Your task to perform on an android device: What's the weather going to be this weekend? Image 0: 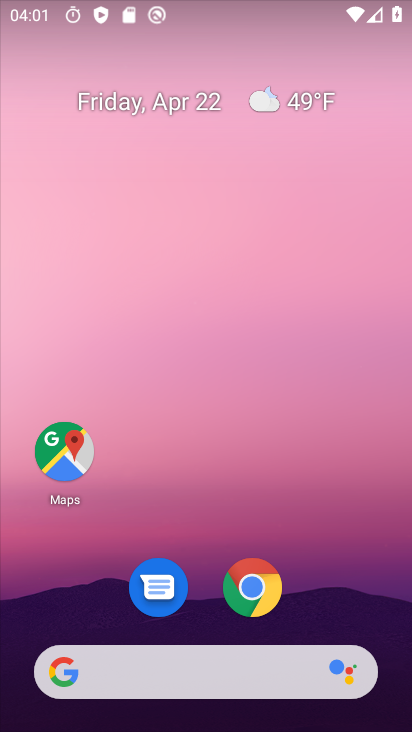
Step 0: click (308, 109)
Your task to perform on an android device: What's the weather going to be this weekend? Image 1: 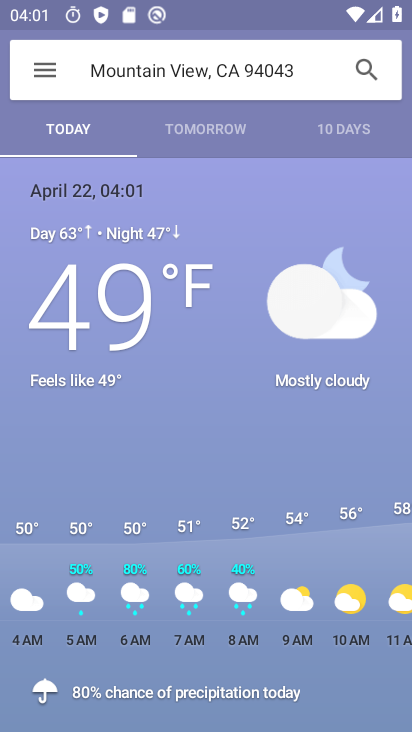
Step 1: click (342, 136)
Your task to perform on an android device: What's the weather going to be this weekend? Image 2: 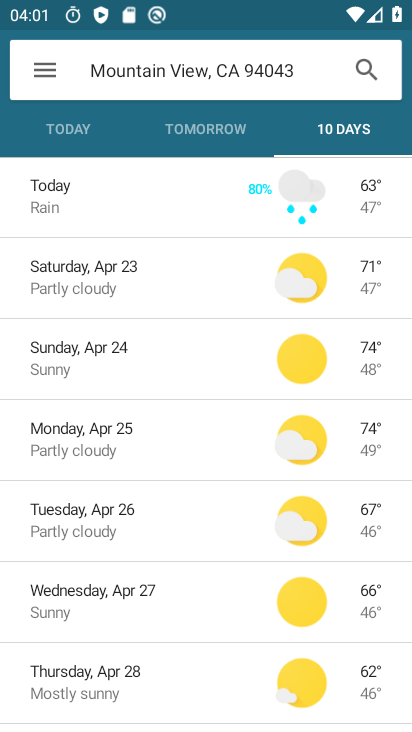
Step 2: task complete